Your task to perform on an android device: turn off airplane mode Image 0: 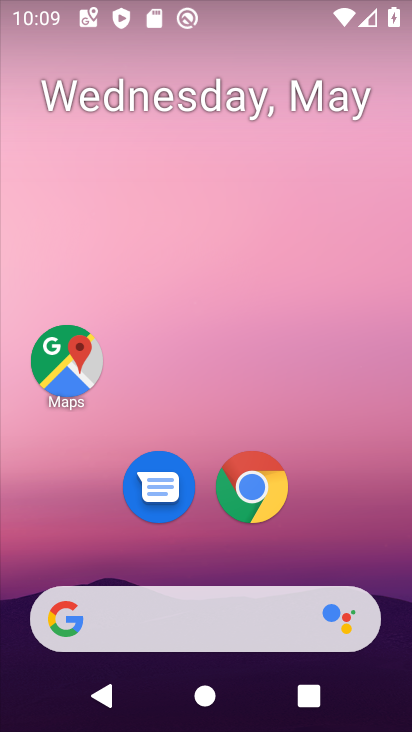
Step 0: drag from (203, 573) to (410, 127)
Your task to perform on an android device: turn off airplane mode Image 1: 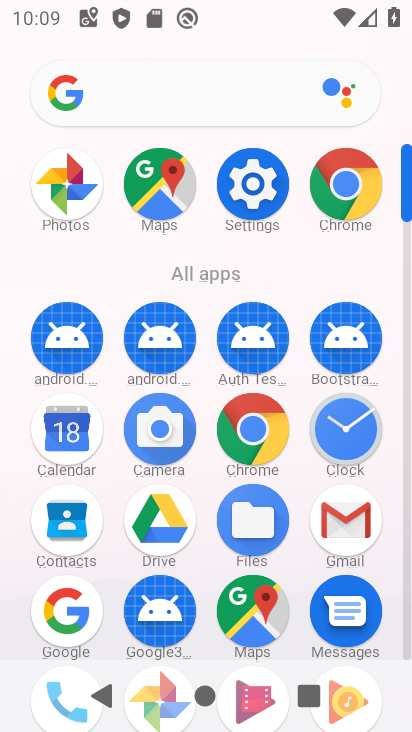
Step 1: click (253, 173)
Your task to perform on an android device: turn off airplane mode Image 2: 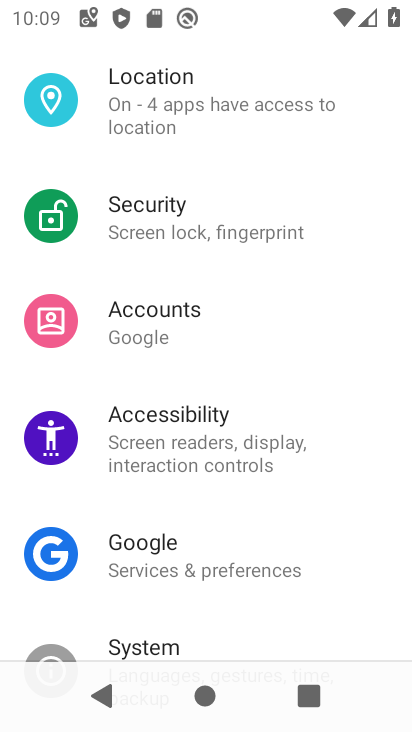
Step 2: drag from (223, 197) to (186, 652)
Your task to perform on an android device: turn off airplane mode Image 3: 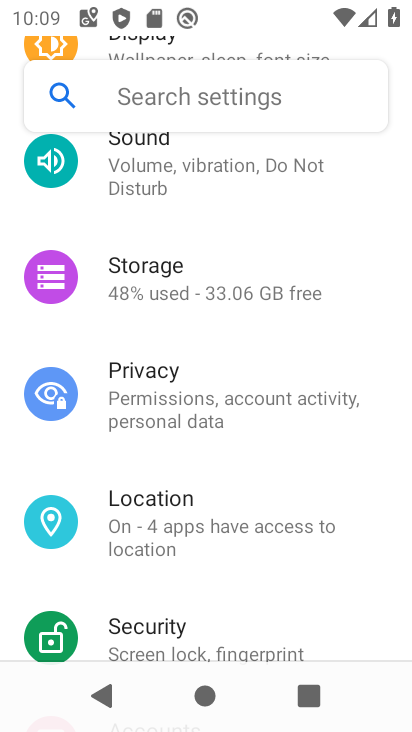
Step 3: drag from (209, 155) to (165, 648)
Your task to perform on an android device: turn off airplane mode Image 4: 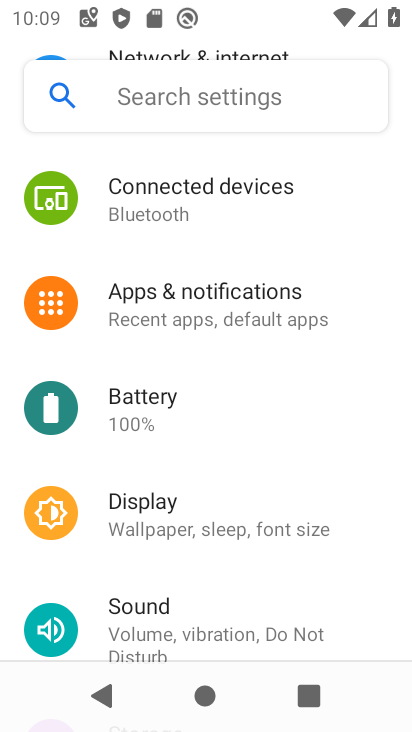
Step 4: drag from (285, 192) to (233, 648)
Your task to perform on an android device: turn off airplane mode Image 5: 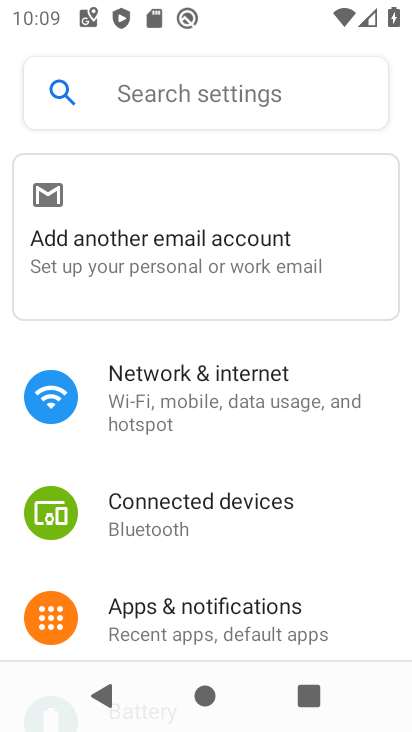
Step 5: click (196, 369)
Your task to perform on an android device: turn off airplane mode Image 6: 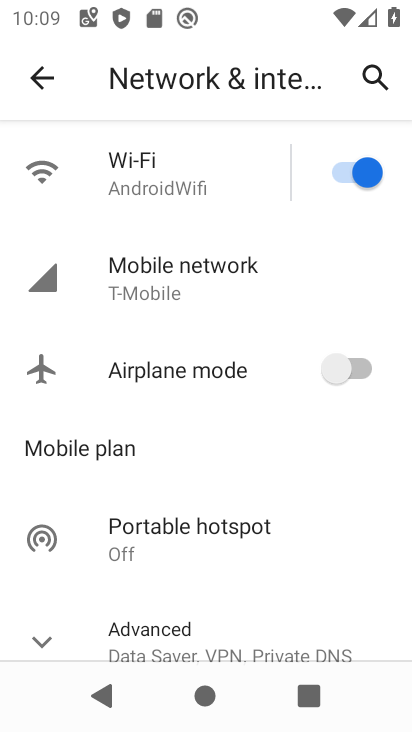
Step 6: task complete